Your task to perform on an android device: Go to Wikipedia Image 0: 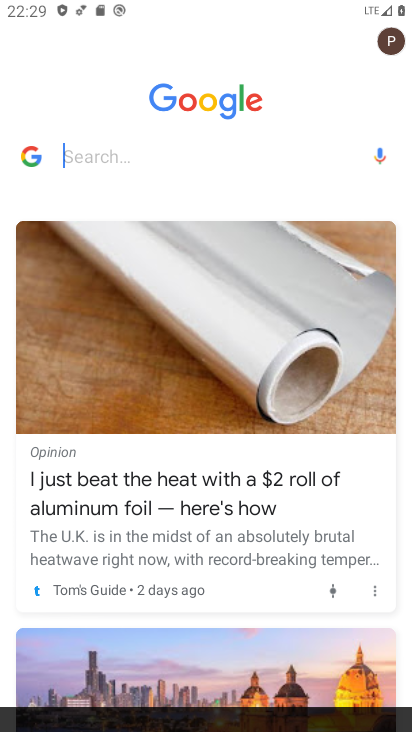
Step 0: drag from (275, 638) to (213, 122)
Your task to perform on an android device: Go to Wikipedia Image 1: 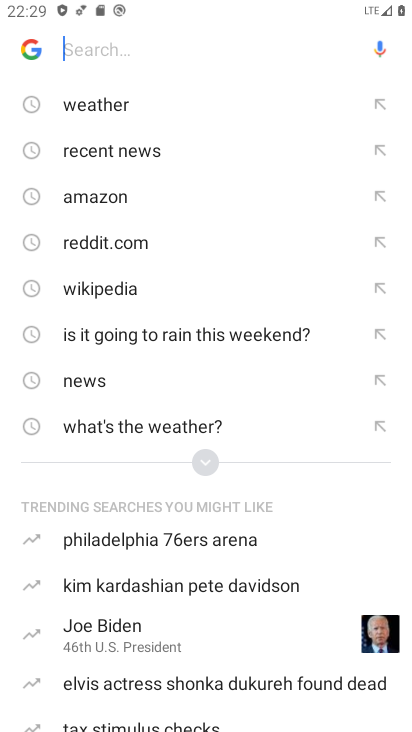
Step 1: press back button
Your task to perform on an android device: Go to Wikipedia Image 2: 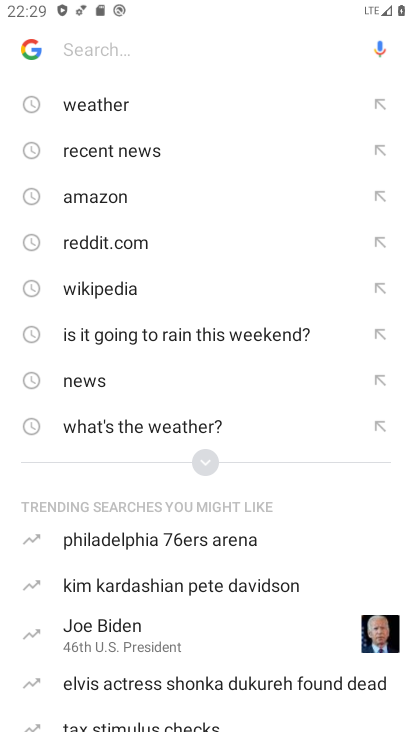
Step 2: press back button
Your task to perform on an android device: Go to Wikipedia Image 3: 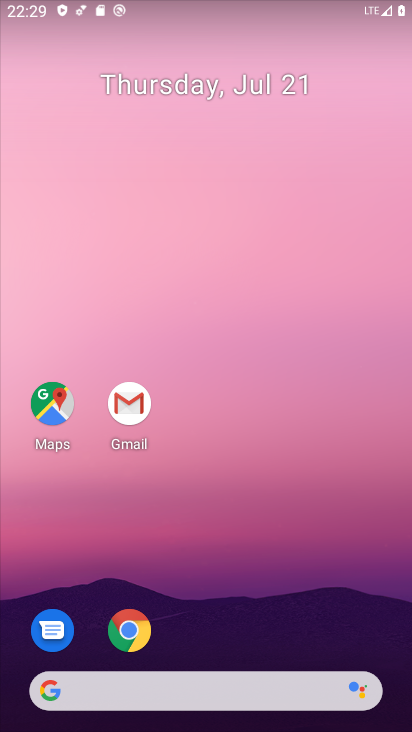
Step 3: drag from (247, 613) to (151, 260)
Your task to perform on an android device: Go to Wikipedia Image 4: 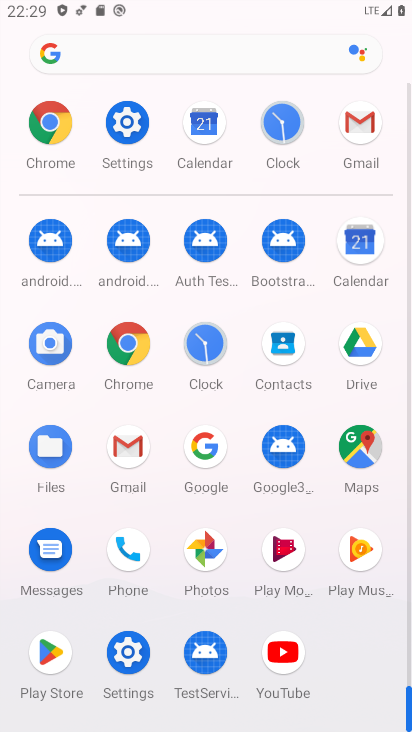
Step 4: click (57, 133)
Your task to perform on an android device: Go to Wikipedia Image 5: 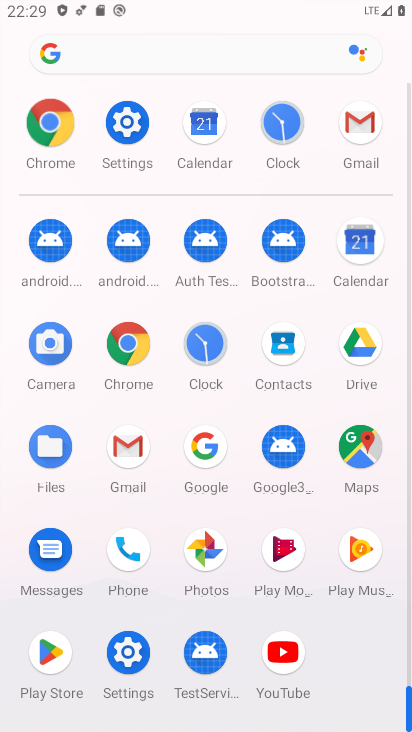
Step 5: click (55, 132)
Your task to perform on an android device: Go to Wikipedia Image 6: 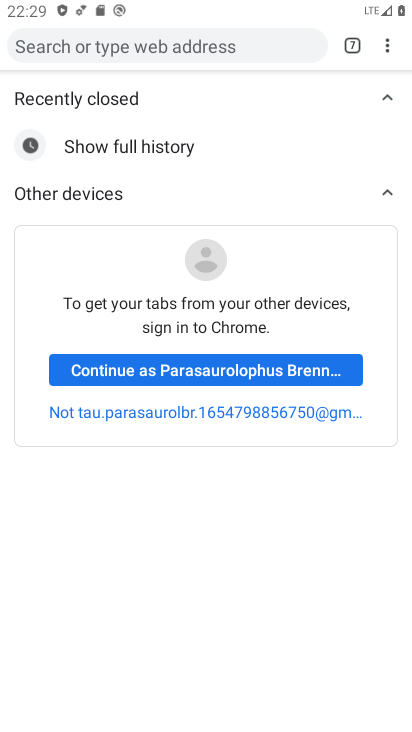
Step 6: drag from (392, 45) to (239, 89)
Your task to perform on an android device: Go to Wikipedia Image 7: 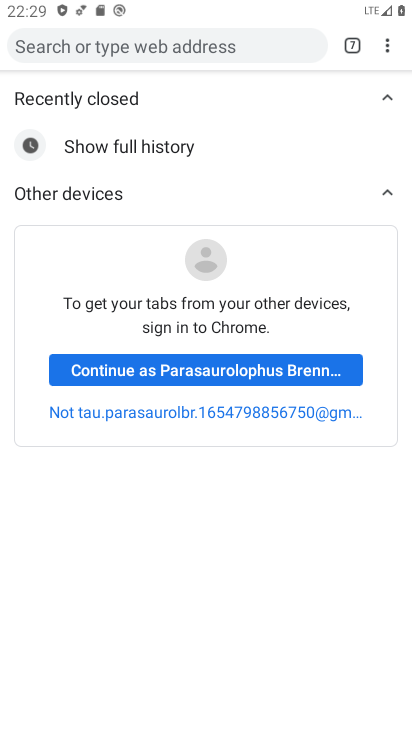
Step 7: click (239, 89)
Your task to perform on an android device: Go to Wikipedia Image 8: 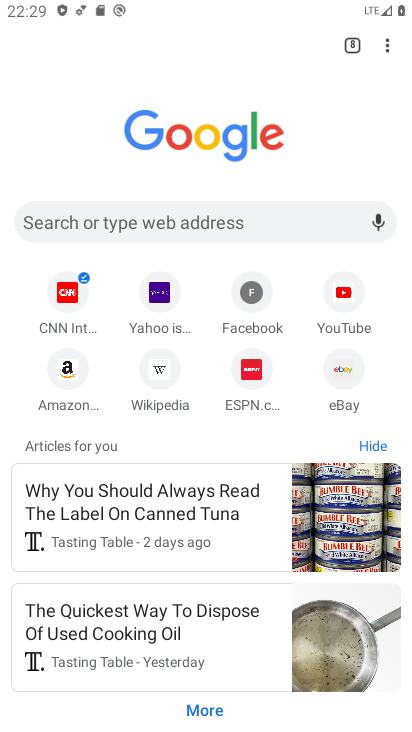
Step 8: click (155, 381)
Your task to perform on an android device: Go to Wikipedia Image 9: 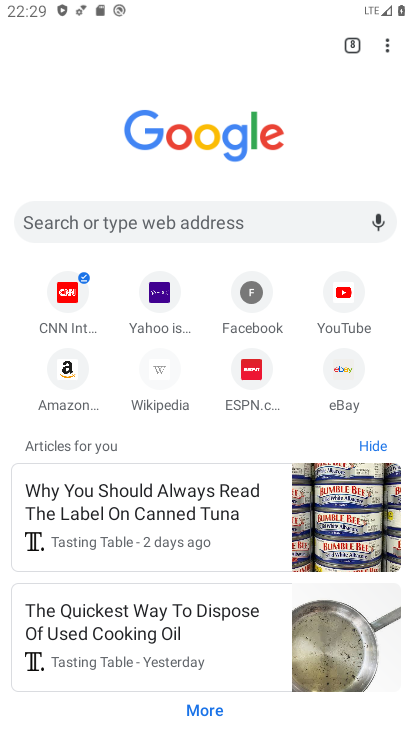
Step 9: click (155, 381)
Your task to perform on an android device: Go to Wikipedia Image 10: 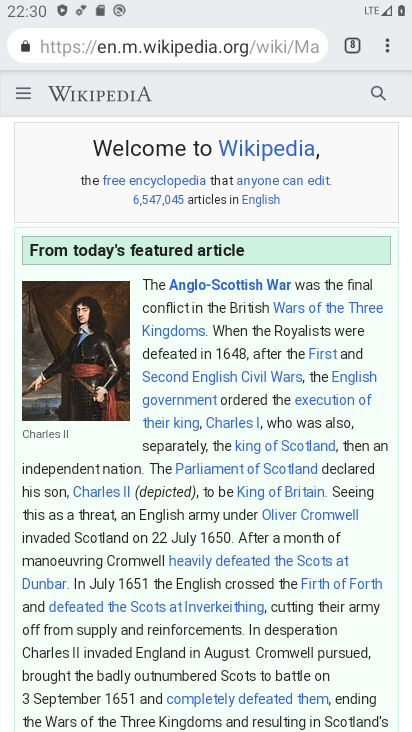
Step 10: task complete